Your task to perform on an android device: Open the calendar app, open the side menu, and click the "Day" option Image 0: 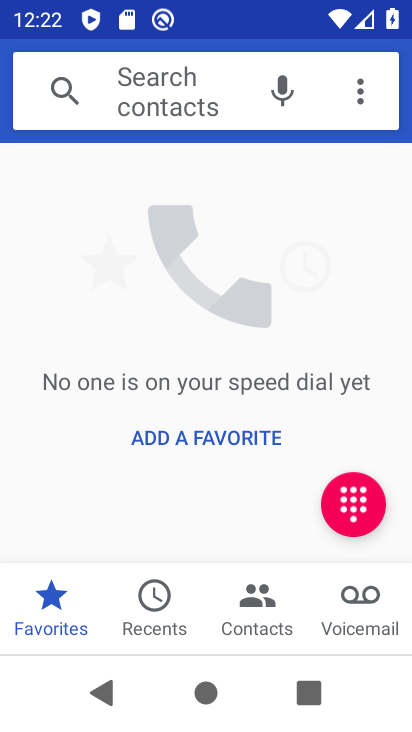
Step 0: press home button
Your task to perform on an android device: Open the calendar app, open the side menu, and click the "Day" option Image 1: 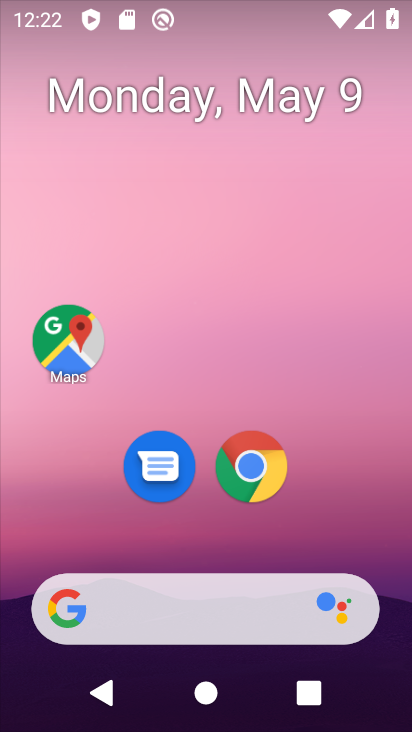
Step 1: drag from (397, 531) to (324, 218)
Your task to perform on an android device: Open the calendar app, open the side menu, and click the "Day" option Image 2: 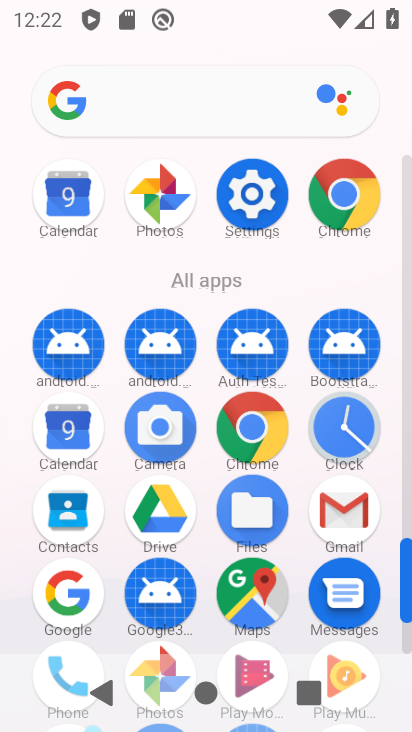
Step 2: click (60, 205)
Your task to perform on an android device: Open the calendar app, open the side menu, and click the "Day" option Image 3: 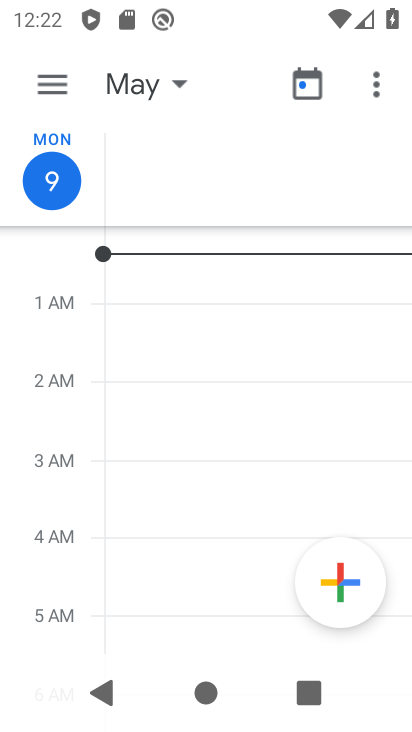
Step 3: click (44, 88)
Your task to perform on an android device: Open the calendar app, open the side menu, and click the "Day" option Image 4: 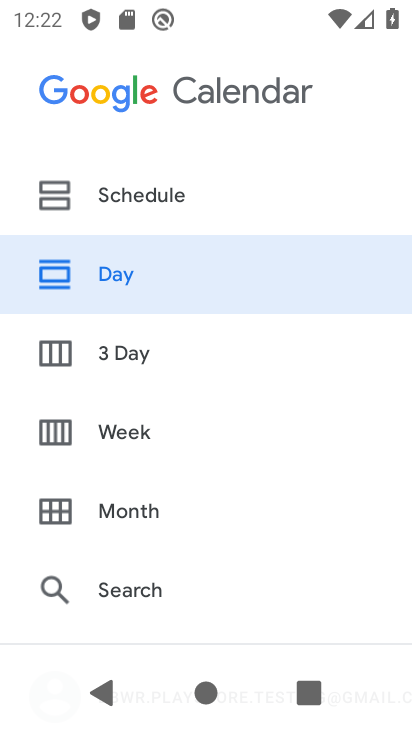
Step 4: click (131, 273)
Your task to perform on an android device: Open the calendar app, open the side menu, and click the "Day" option Image 5: 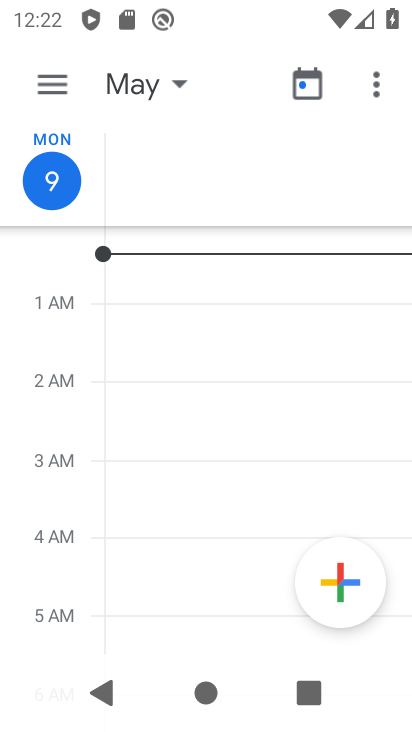
Step 5: task complete